Your task to perform on an android device: turn off sleep mode Image 0: 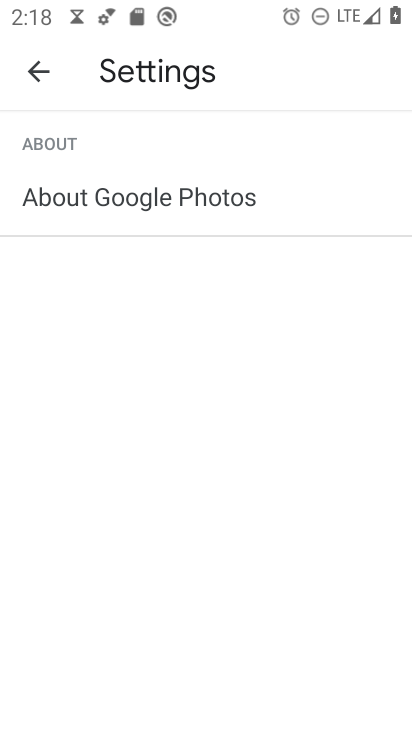
Step 0: press home button
Your task to perform on an android device: turn off sleep mode Image 1: 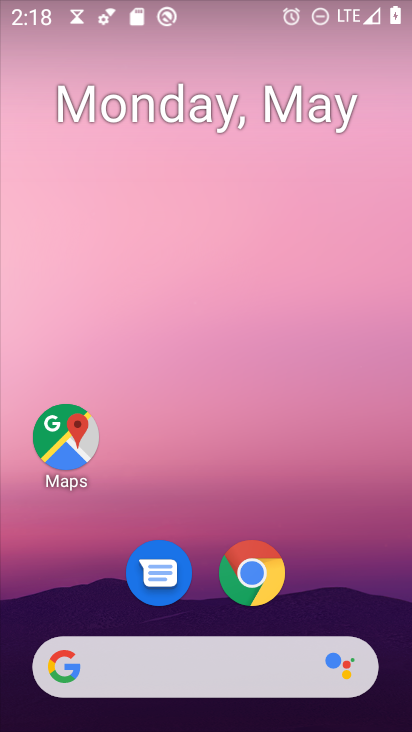
Step 1: drag from (272, 653) to (256, 0)
Your task to perform on an android device: turn off sleep mode Image 2: 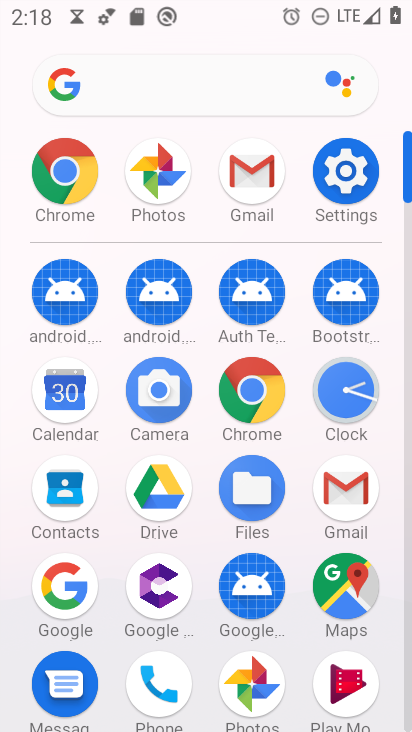
Step 2: click (340, 162)
Your task to perform on an android device: turn off sleep mode Image 3: 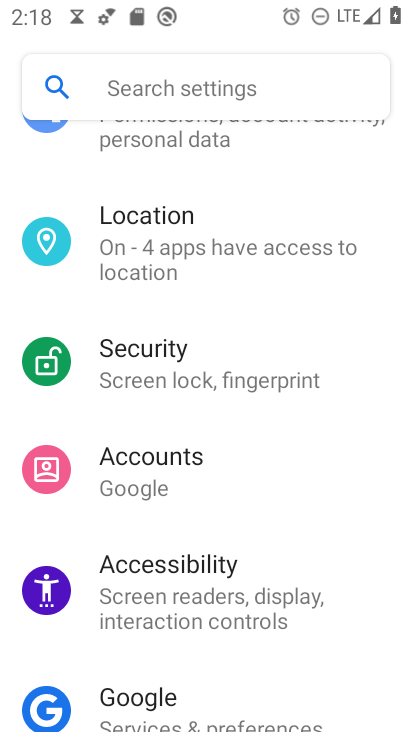
Step 3: drag from (301, 271) to (300, 700)
Your task to perform on an android device: turn off sleep mode Image 4: 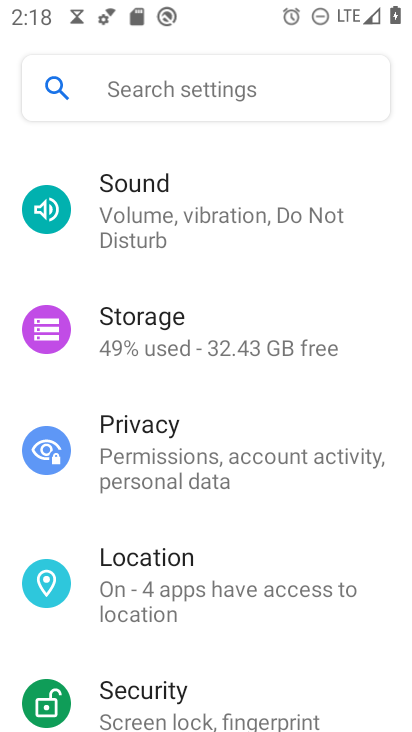
Step 4: drag from (215, 157) to (314, 709)
Your task to perform on an android device: turn off sleep mode Image 5: 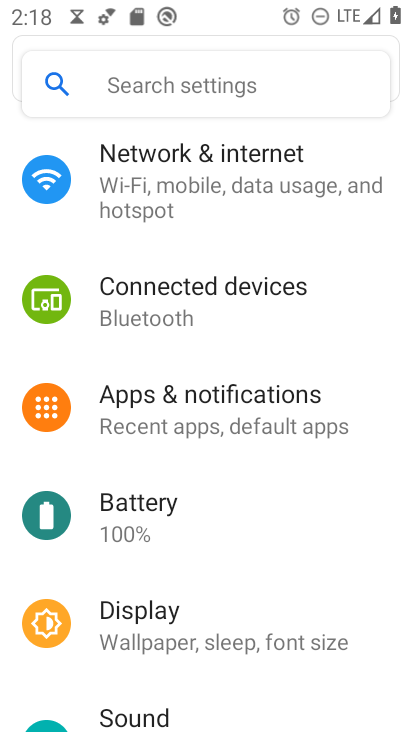
Step 5: click (216, 626)
Your task to perform on an android device: turn off sleep mode Image 6: 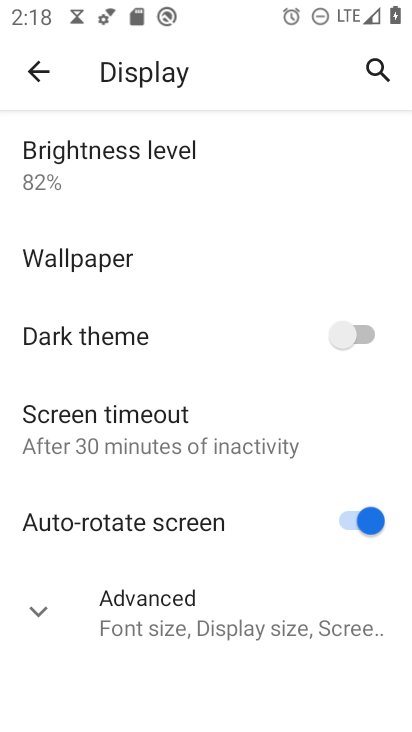
Step 6: task complete